Your task to perform on an android device: Google the capital of Mexico Image 0: 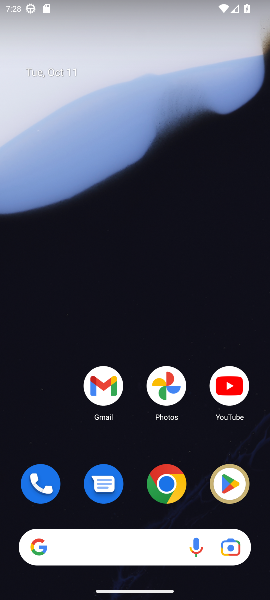
Step 0: click (166, 483)
Your task to perform on an android device: Google the capital of Mexico Image 1: 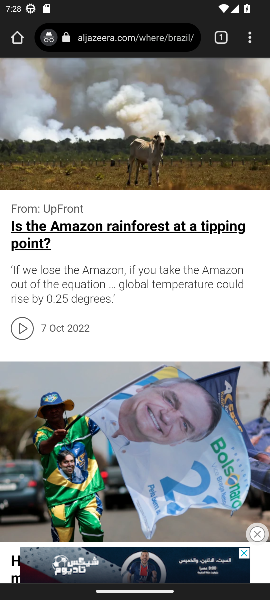
Step 1: click (119, 36)
Your task to perform on an android device: Google the capital of Mexico Image 2: 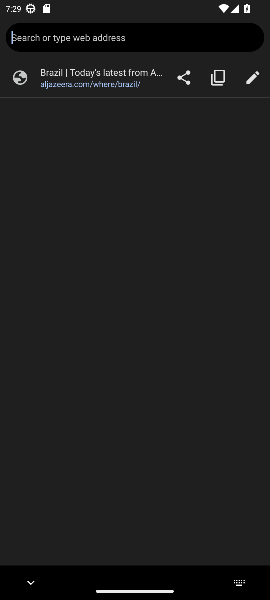
Step 2: type "capital of Mexico"
Your task to perform on an android device: Google the capital of Mexico Image 3: 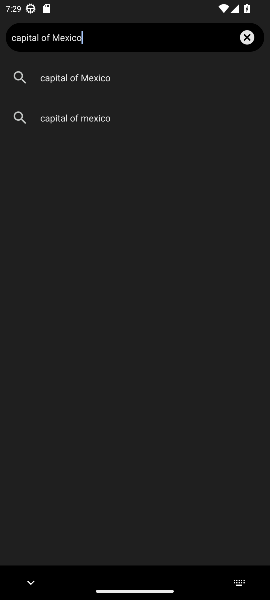
Step 3: click (93, 77)
Your task to perform on an android device: Google the capital of Mexico Image 4: 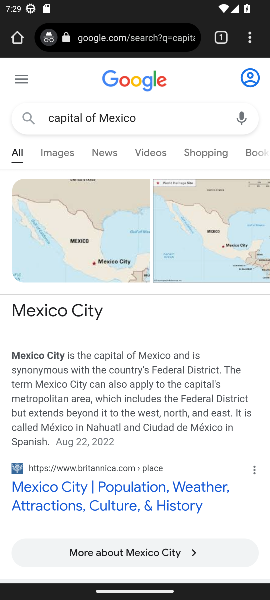
Step 4: task complete